Your task to perform on an android device: allow cookies in the chrome app Image 0: 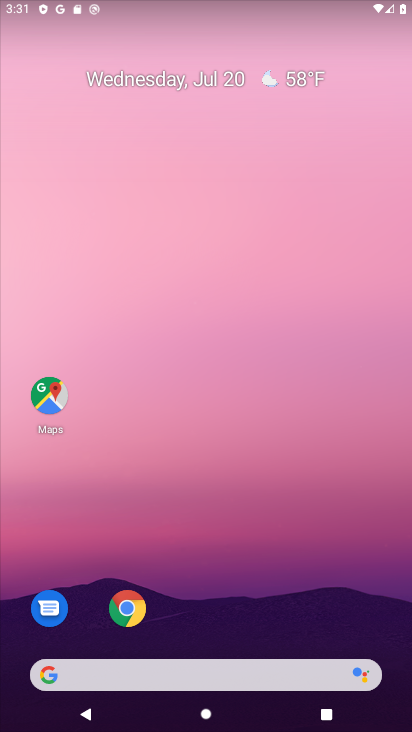
Step 0: drag from (251, 561) to (209, 157)
Your task to perform on an android device: allow cookies in the chrome app Image 1: 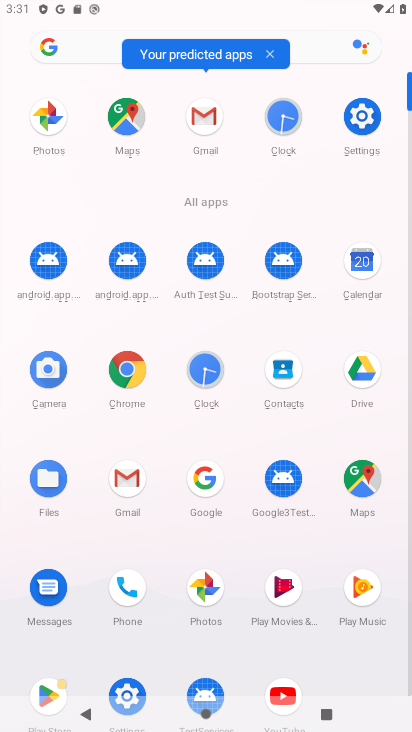
Step 1: click (135, 368)
Your task to perform on an android device: allow cookies in the chrome app Image 2: 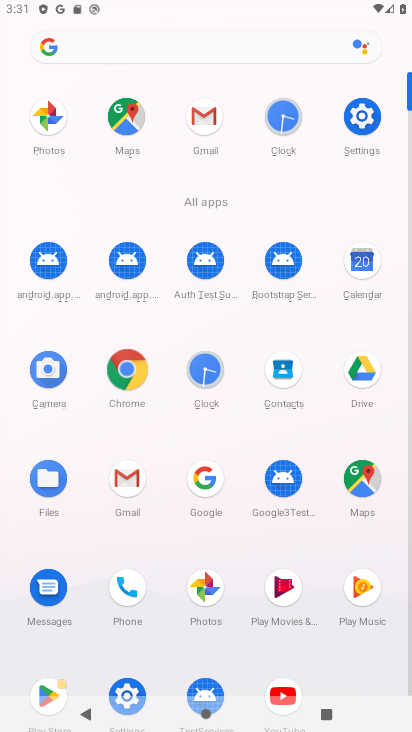
Step 2: click (130, 371)
Your task to perform on an android device: allow cookies in the chrome app Image 3: 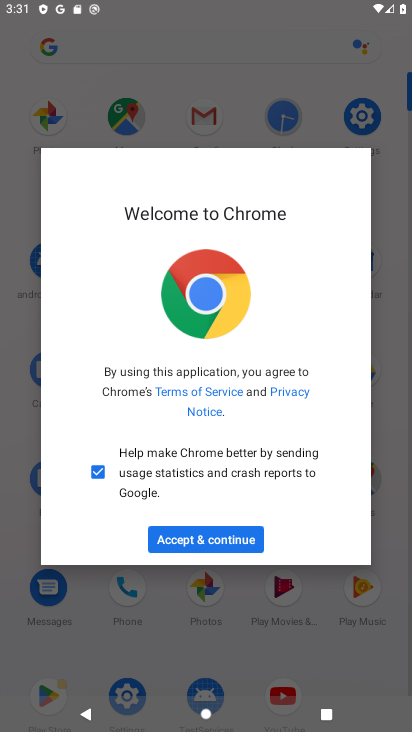
Step 3: click (198, 540)
Your task to perform on an android device: allow cookies in the chrome app Image 4: 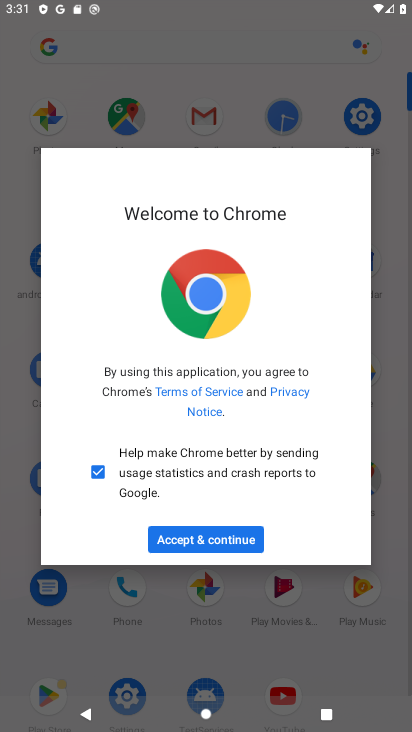
Step 4: click (199, 540)
Your task to perform on an android device: allow cookies in the chrome app Image 5: 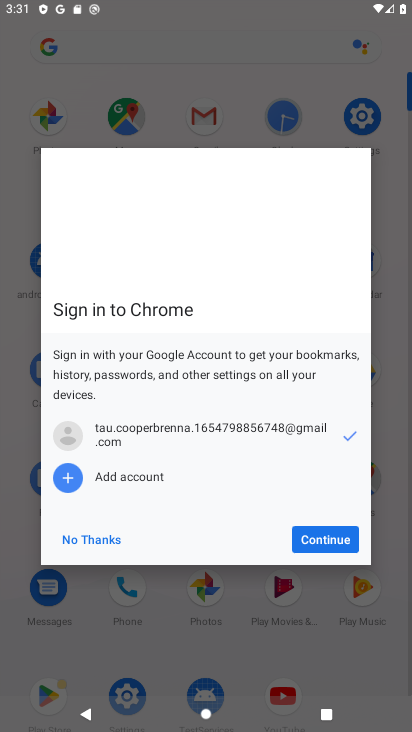
Step 5: click (199, 540)
Your task to perform on an android device: allow cookies in the chrome app Image 6: 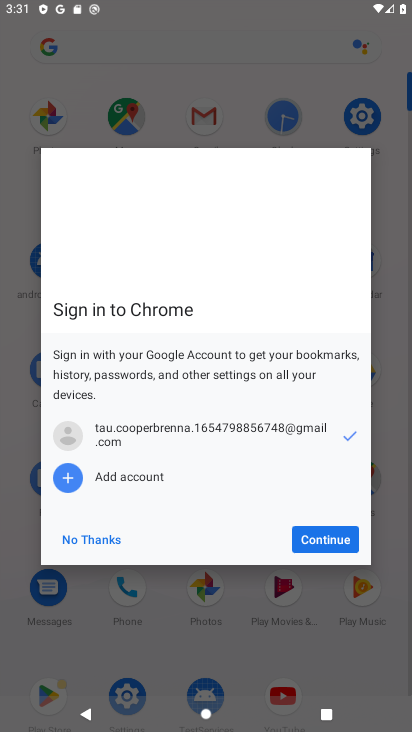
Step 6: click (199, 540)
Your task to perform on an android device: allow cookies in the chrome app Image 7: 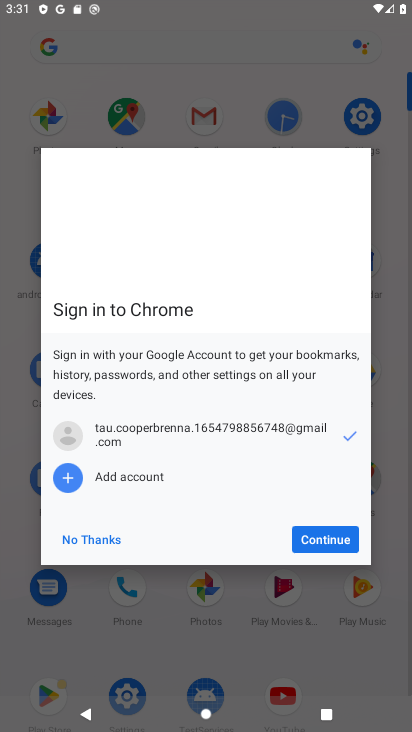
Step 7: click (334, 539)
Your task to perform on an android device: allow cookies in the chrome app Image 8: 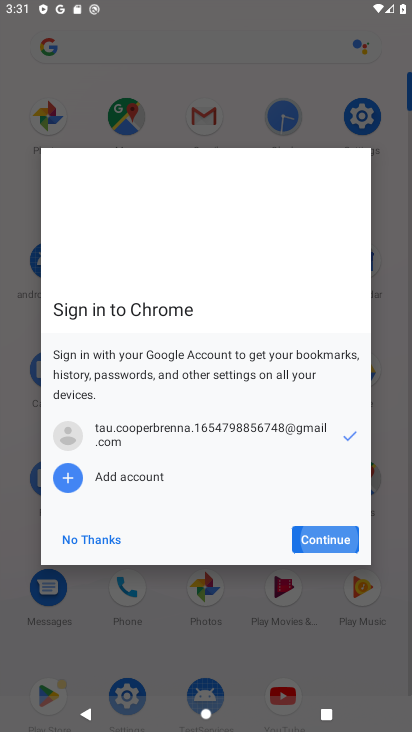
Step 8: click (333, 540)
Your task to perform on an android device: allow cookies in the chrome app Image 9: 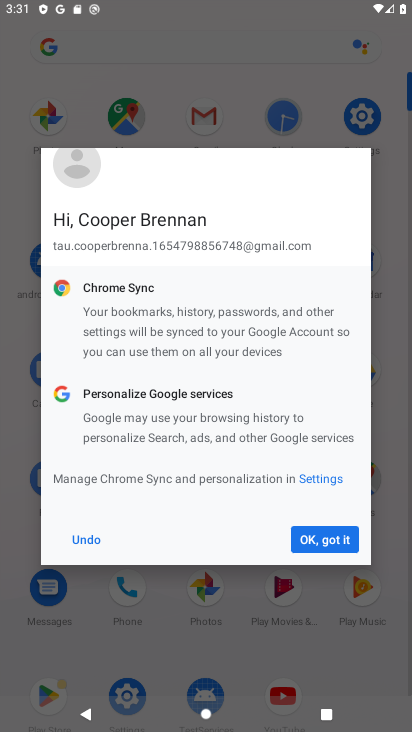
Step 9: click (104, 528)
Your task to perform on an android device: allow cookies in the chrome app Image 10: 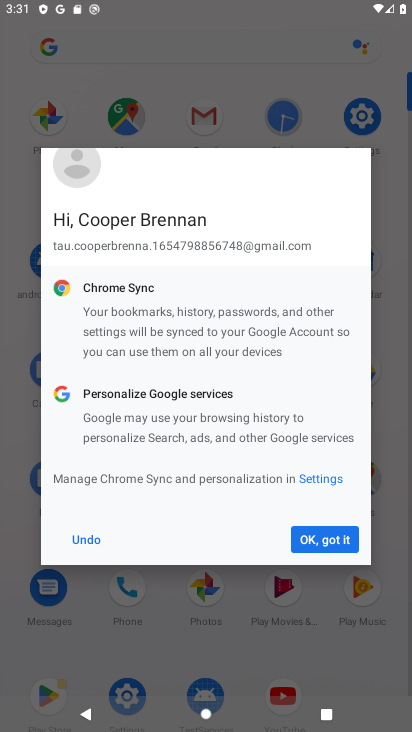
Step 10: click (96, 530)
Your task to perform on an android device: allow cookies in the chrome app Image 11: 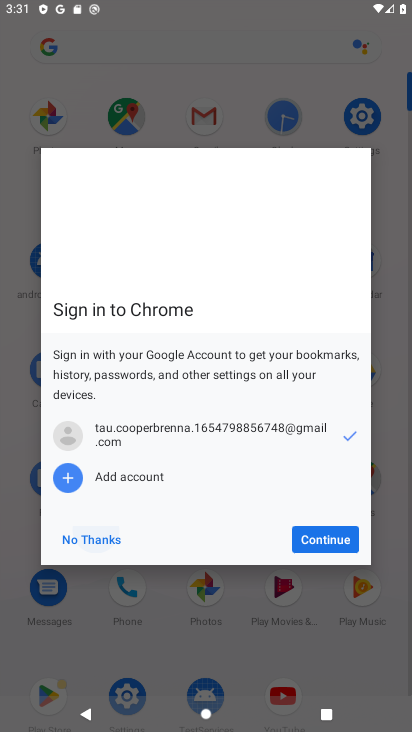
Step 11: click (103, 541)
Your task to perform on an android device: allow cookies in the chrome app Image 12: 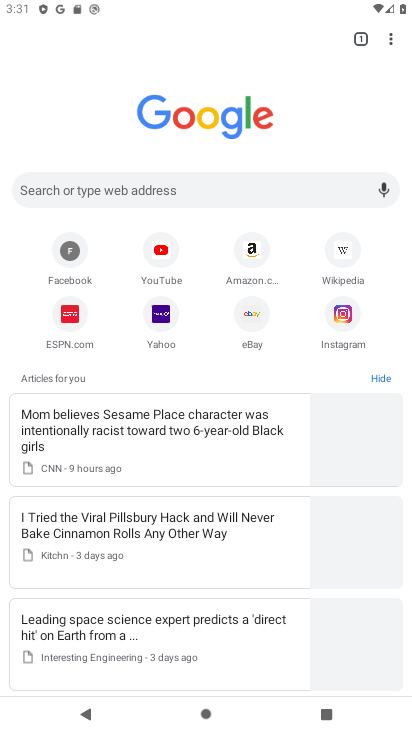
Step 12: drag from (382, 28) to (253, 327)
Your task to perform on an android device: allow cookies in the chrome app Image 13: 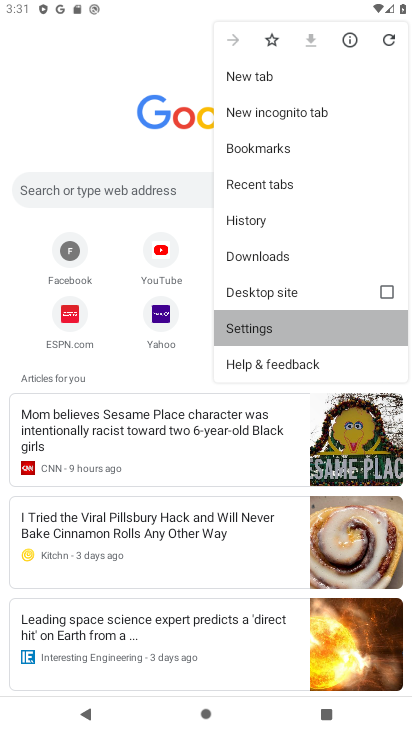
Step 13: click (251, 328)
Your task to perform on an android device: allow cookies in the chrome app Image 14: 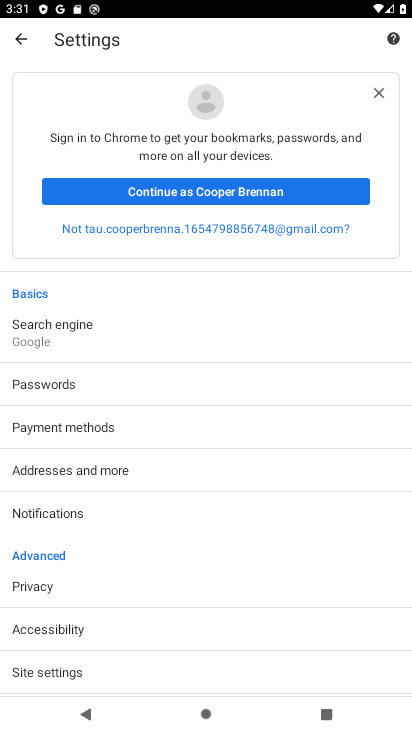
Step 14: drag from (92, 587) to (112, 223)
Your task to perform on an android device: allow cookies in the chrome app Image 15: 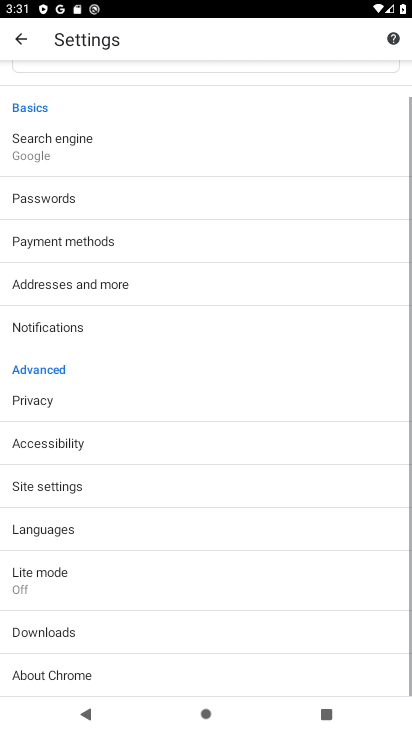
Step 15: drag from (180, 416) to (208, 221)
Your task to perform on an android device: allow cookies in the chrome app Image 16: 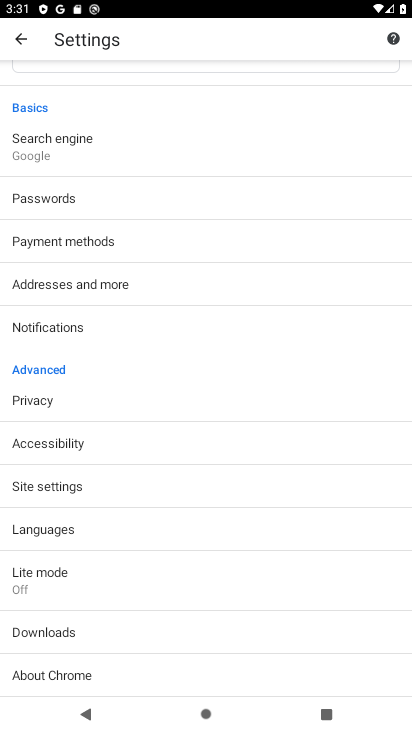
Step 16: click (50, 479)
Your task to perform on an android device: allow cookies in the chrome app Image 17: 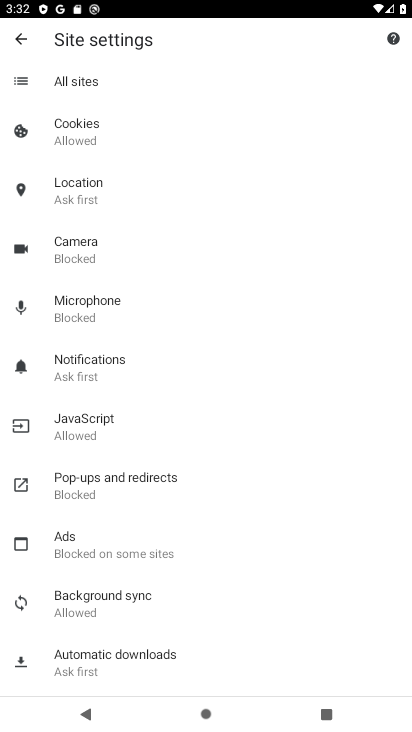
Step 17: click (88, 138)
Your task to perform on an android device: allow cookies in the chrome app Image 18: 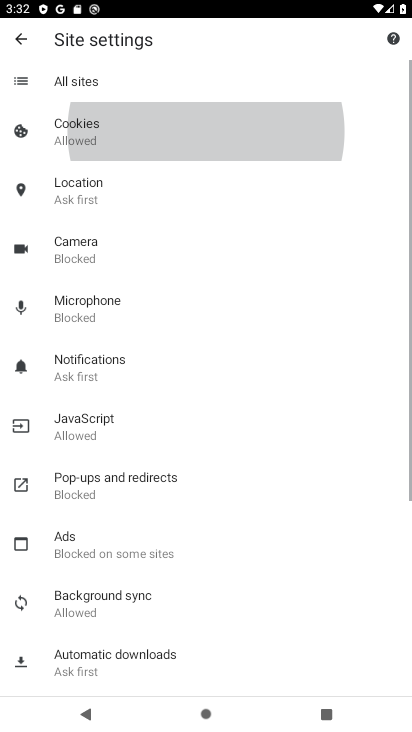
Step 18: click (87, 136)
Your task to perform on an android device: allow cookies in the chrome app Image 19: 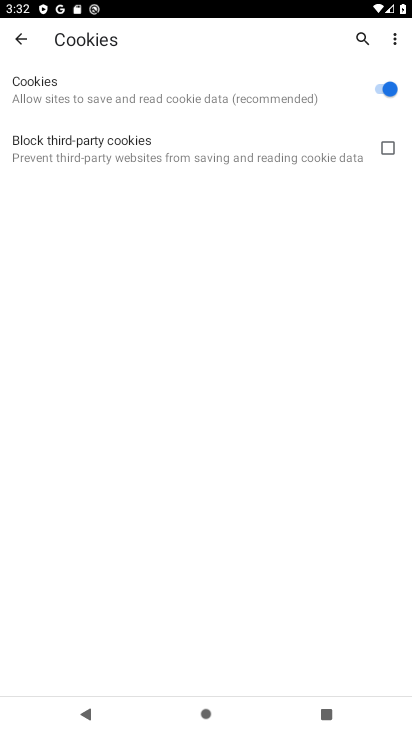
Step 19: click (386, 81)
Your task to perform on an android device: allow cookies in the chrome app Image 20: 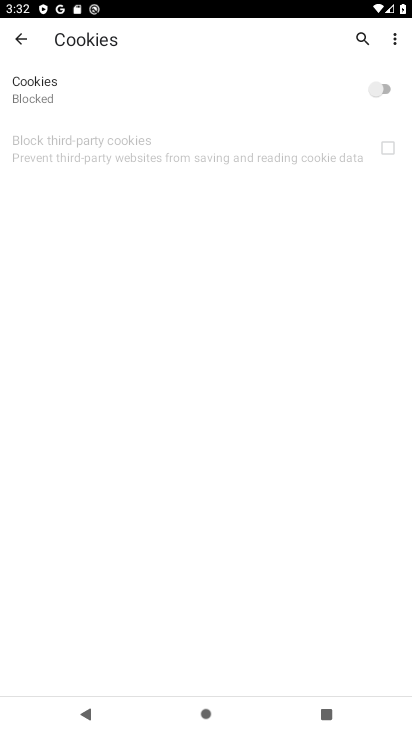
Step 20: task complete